Your task to perform on an android device: Go to sound settings Image 0: 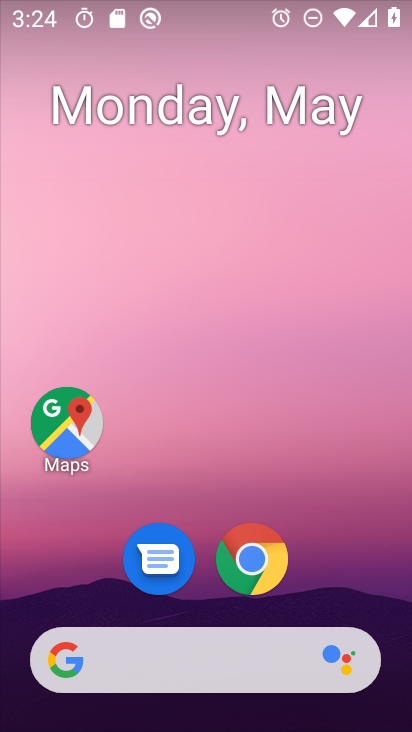
Step 0: drag from (189, 569) to (236, 45)
Your task to perform on an android device: Go to sound settings Image 1: 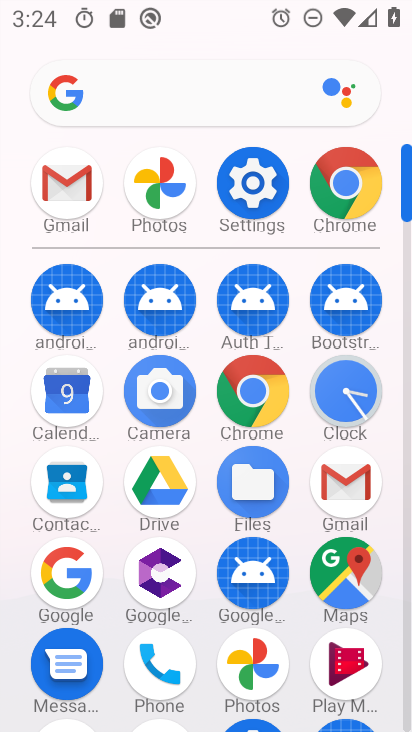
Step 1: click (253, 178)
Your task to perform on an android device: Go to sound settings Image 2: 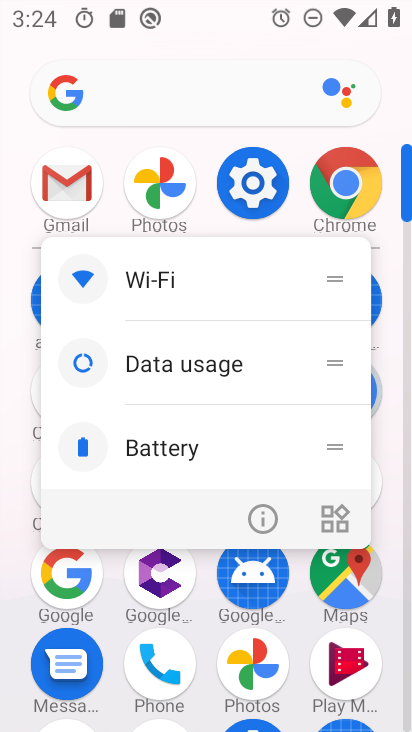
Step 2: click (262, 513)
Your task to perform on an android device: Go to sound settings Image 3: 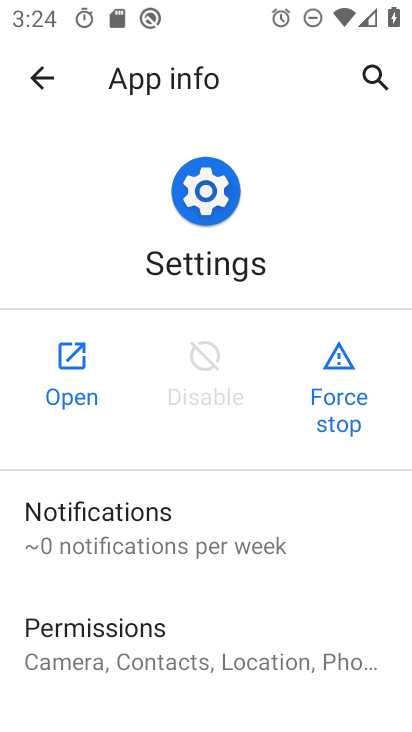
Step 3: click (79, 376)
Your task to perform on an android device: Go to sound settings Image 4: 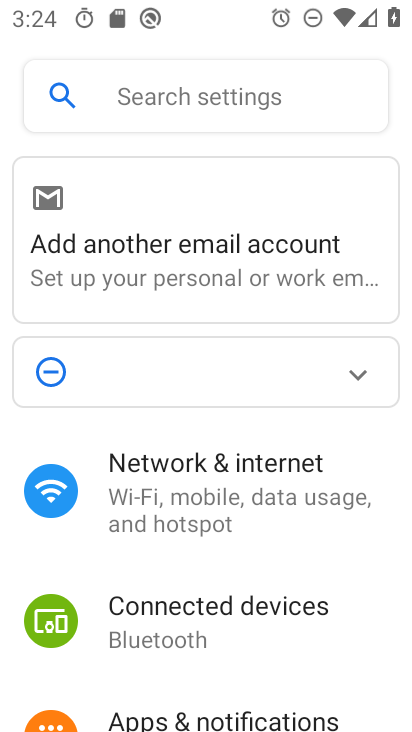
Step 4: drag from (247, 532) to (247, 448)
Your task to perform on an android device: Go to sound settings Image 5: 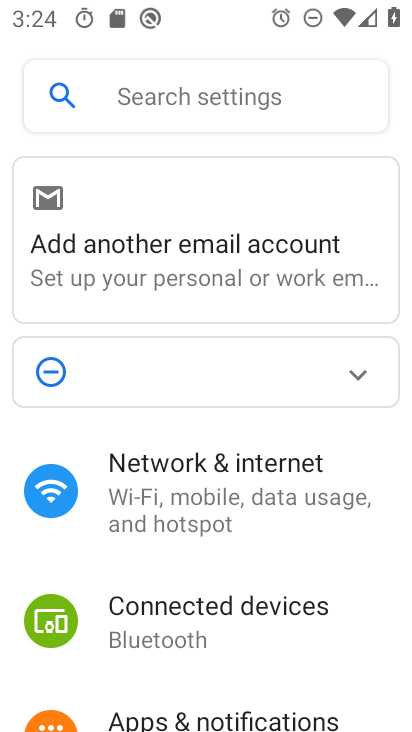
Step 5: drag from (254, 640) to (266, 405)
Your task to perform on an android device: Go to sound settings Image 6: 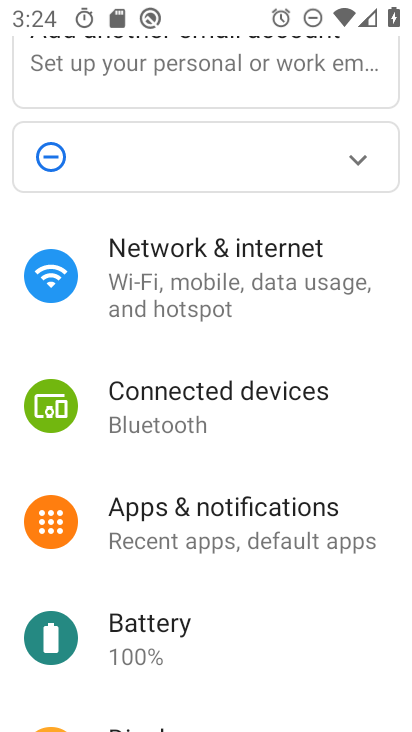
Step 6: drag from (225, 635) to (270, 375)
Your task to perform on an android device: Go to sound settings Image 7: 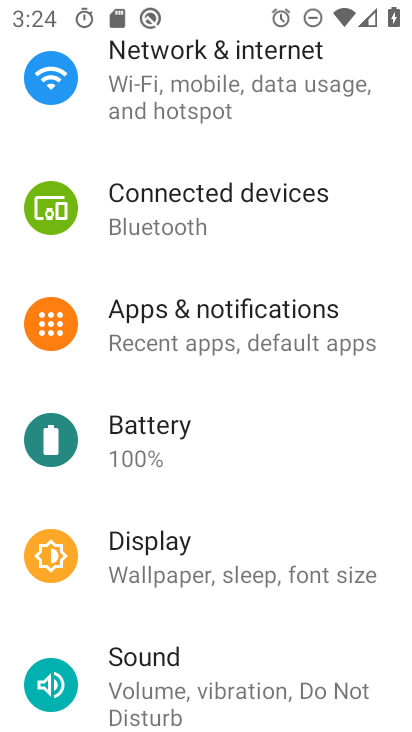
Step 7: drag from (203, 656) to (250, 349)
Your task to perform on an android device: Go to sound settings Image 8: 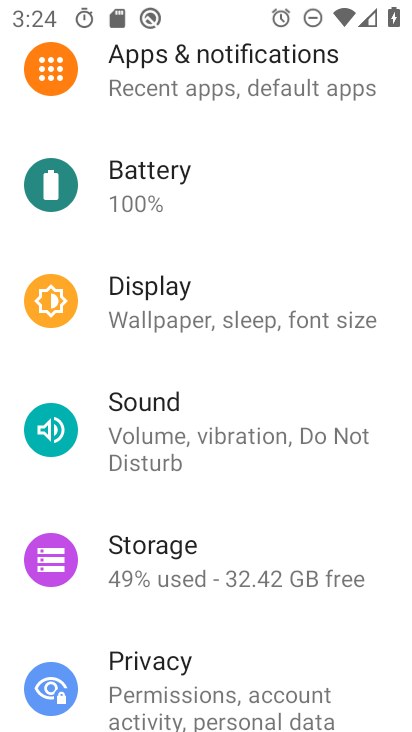
Step 8: click (183, 408)
Your task to perform on an android device: Go to sound settings Image 9: 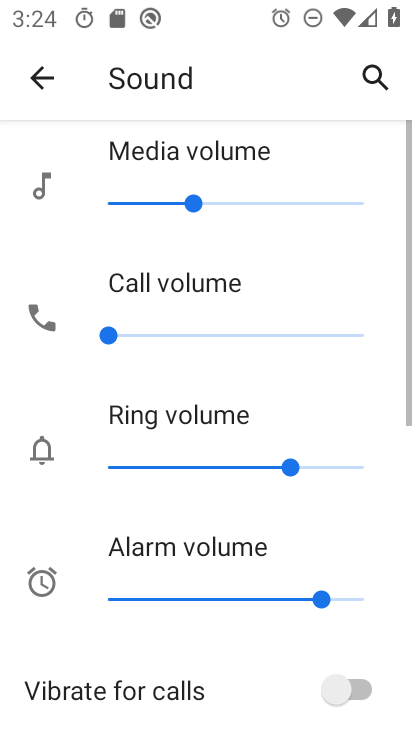
Step 9: task complete